Your task to perform on an android device: Clear the cart on target.com. Search for jbl charge 4 on target.com, select the first entry, and add it to the cart. Image 0: 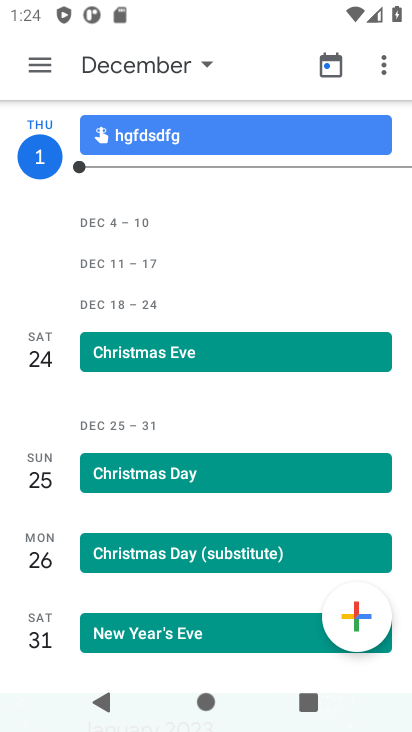
Step 0: press home button
Your task to perform on an android device: Clear the cart on target.com. Search for jbl charge 4 on target.com, select the first entry, and add it to the cart. Image 1: 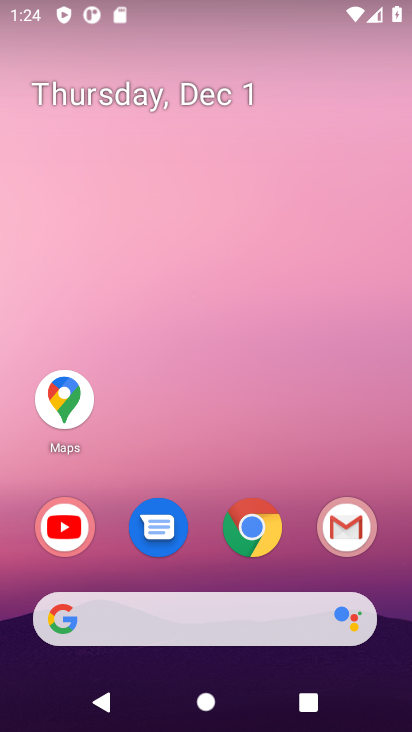
Step 1: click (254, 520)
Your task to perform on an android device: Clear the cart on target.com. Search for jbl charge 4 on target.com, select the first entry, and add it to the cart. Image 2: 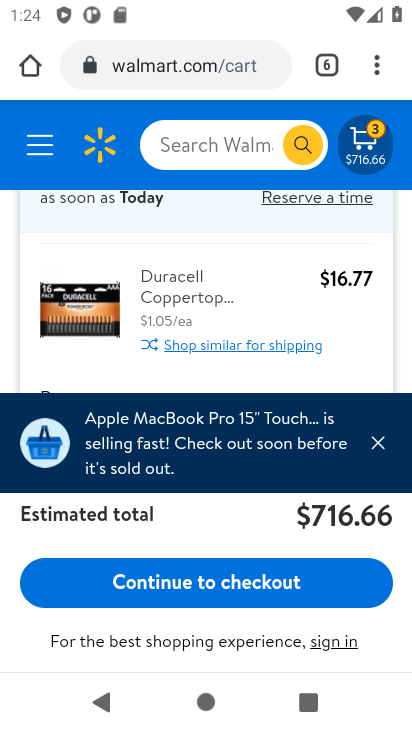
Step 2: click (199, 71)
Your task to perform on an android device: Clear the cart on target.com. Search for jbl charge 4 on target.com, select the first entry, and add it to the cart. Image 3: 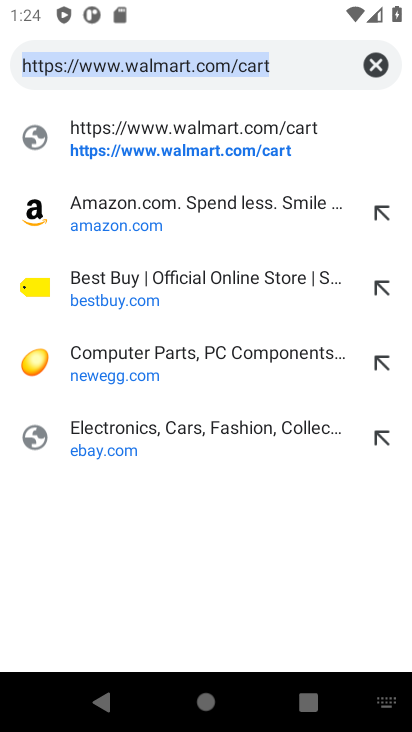
Step 3: type "target.com"
Your task to perform on an android device: Clear the cart on target.com. Search for jbl charge 4 on target.com, select the first entry, and add it to the cart. Image 4: 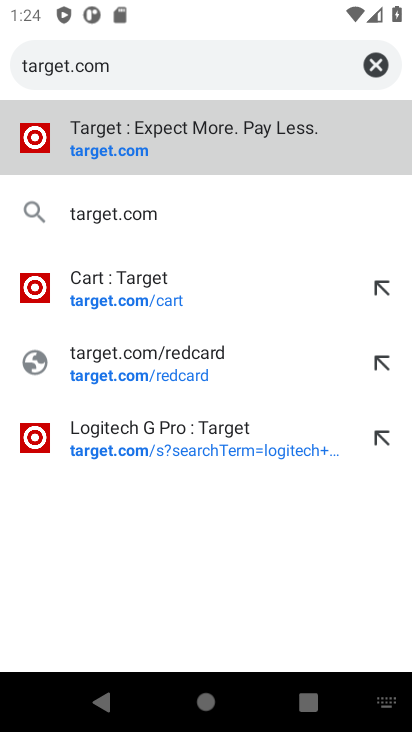
Step 4: click (113, 150)
Your task to perform on an android device: Clear the cart on target.com. Search for jbl charge 4 on target.com, select the first entry, and add it to the cart. Image 5: 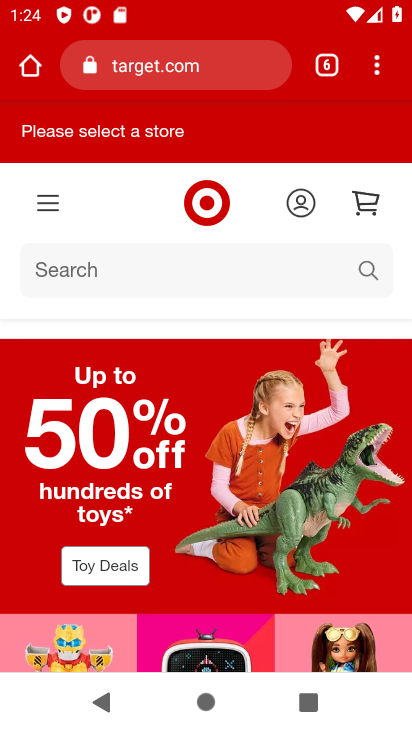
Step 5: click (362, 216)
Your task to perform on an android device: Clear the cart on target.com. Search for jbl charge 4 on target.com, select the first entry, and add it to the cart. Image 6: 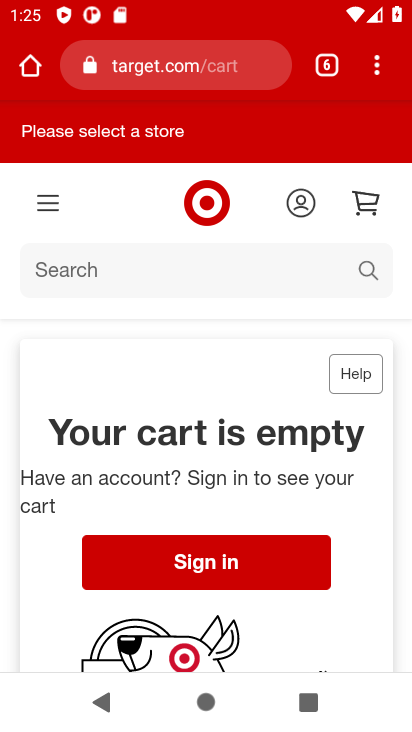
Step 6: click (50, 280)
Your task to perform on an android device: Clear the cart on target.com. Search for jbl charge 4 on target.com, select the first entry, and add it to the cart. Image 7: 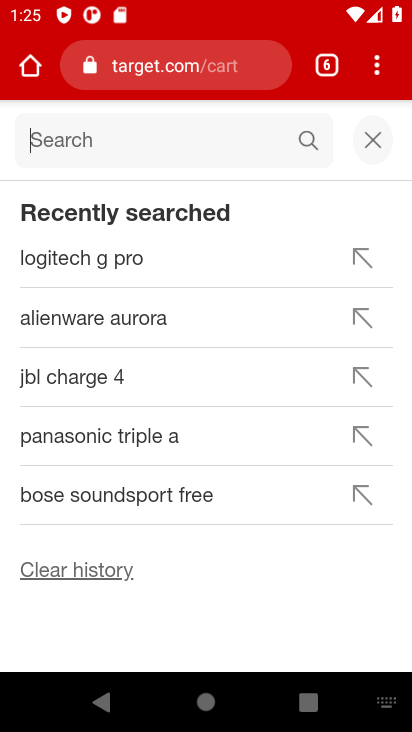
Step 7: type "jbl charge 4"
Your task to perform on an android device: Clear the cart on target.com. Search for jbl charge 4 on target.com, select the first entry, and add it to the cart. Image 8: 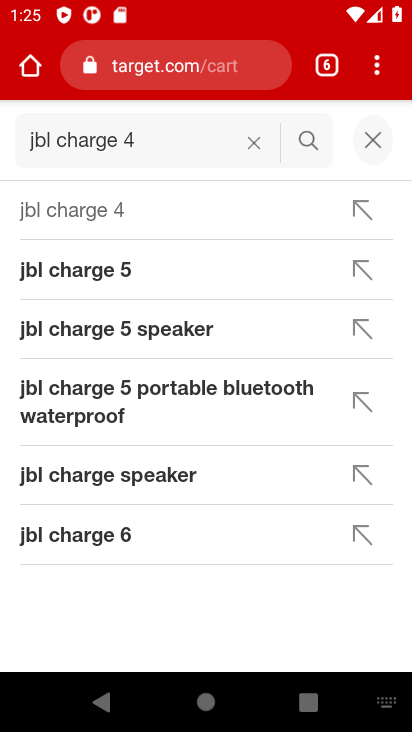
Step 8: click (73, 213)
Your task to perform on an android device: Clear the cart on target.com. Search for jbl charge 4 on target.com, select the first entry, and add it to the cart. Image 9: 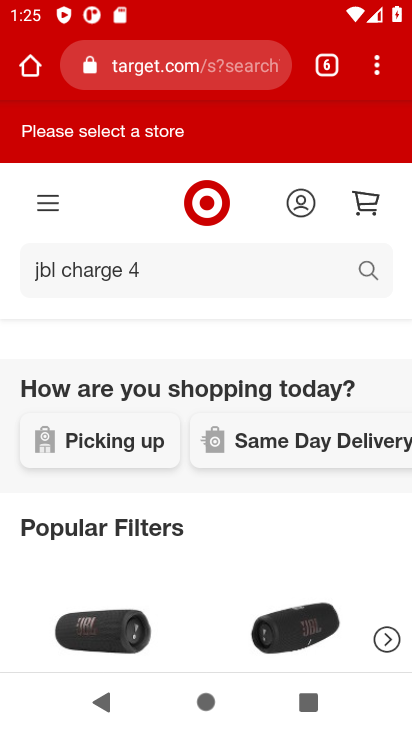
Step 9: task complete